Your task to perform on an android device: Open Google Image 0: 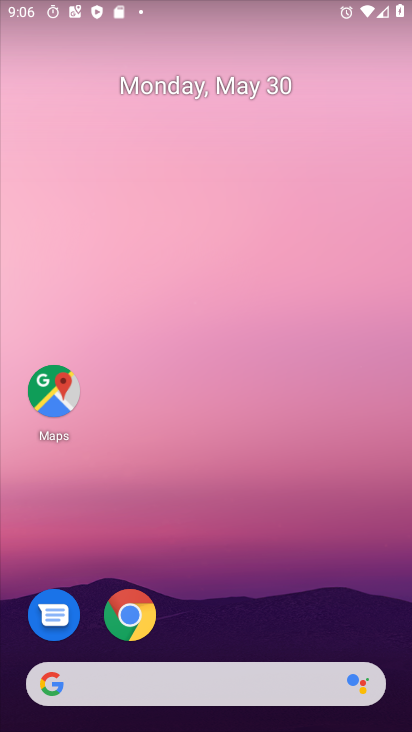
Step 0: drag from (288, 618) to (310, 24)
Your task to perform on an android device: Open Google Image 1: 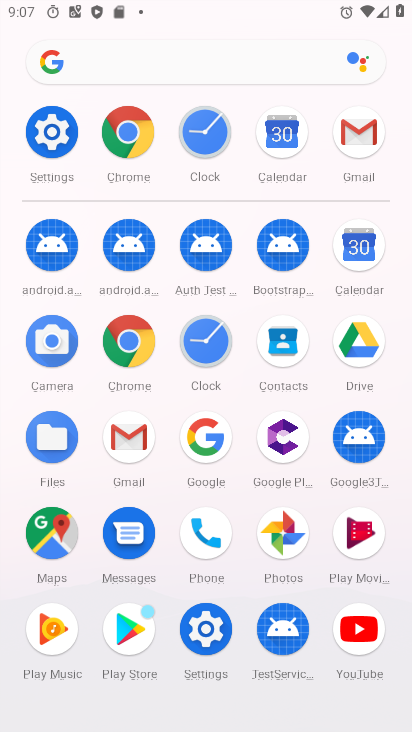
Step 1: click (217, 438)
Your task to perform on an android device: Open Google Image 2: 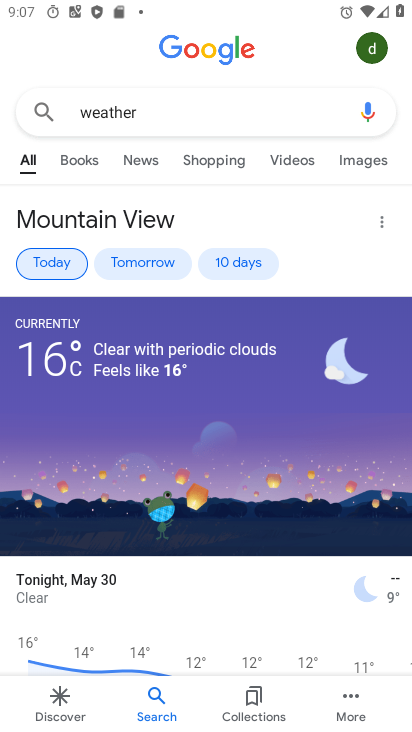
Step 2: task complete